Your task to perform on an android device: install app "Google Play Games" Image 0: 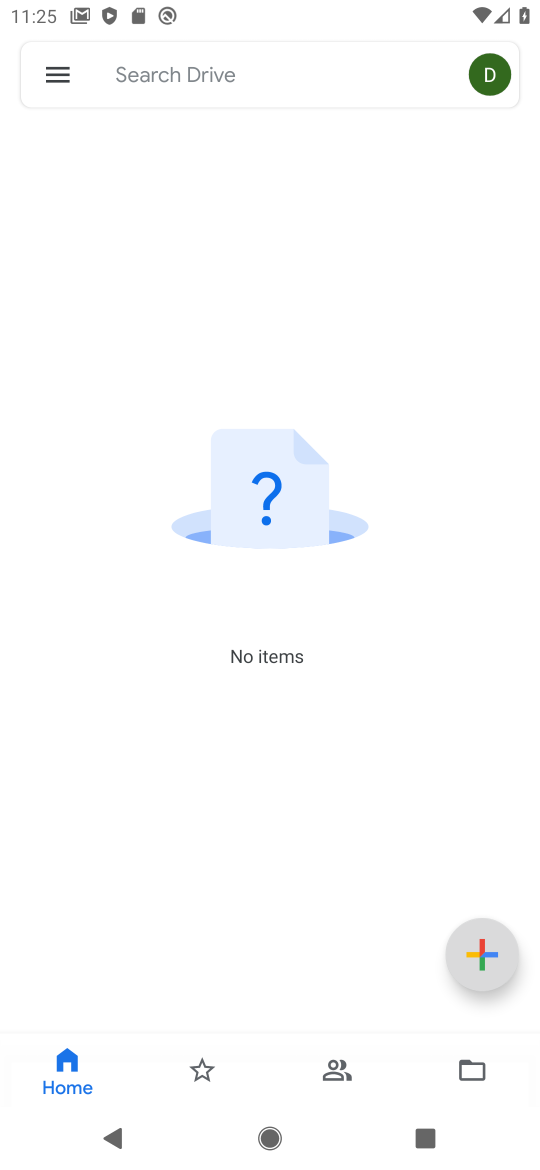
Step 0: press back button
Your task to perform on an android device: install app "Google Play Games" Image 1: 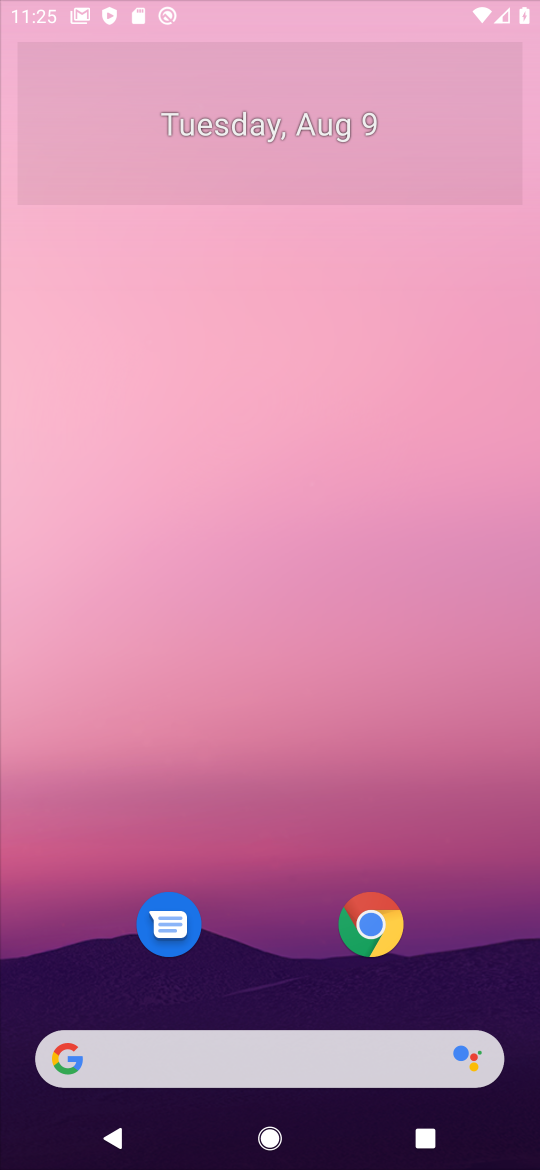
Step 1: press back button
Your task to perform on an android device: install app "Google Play Games" Image 2: 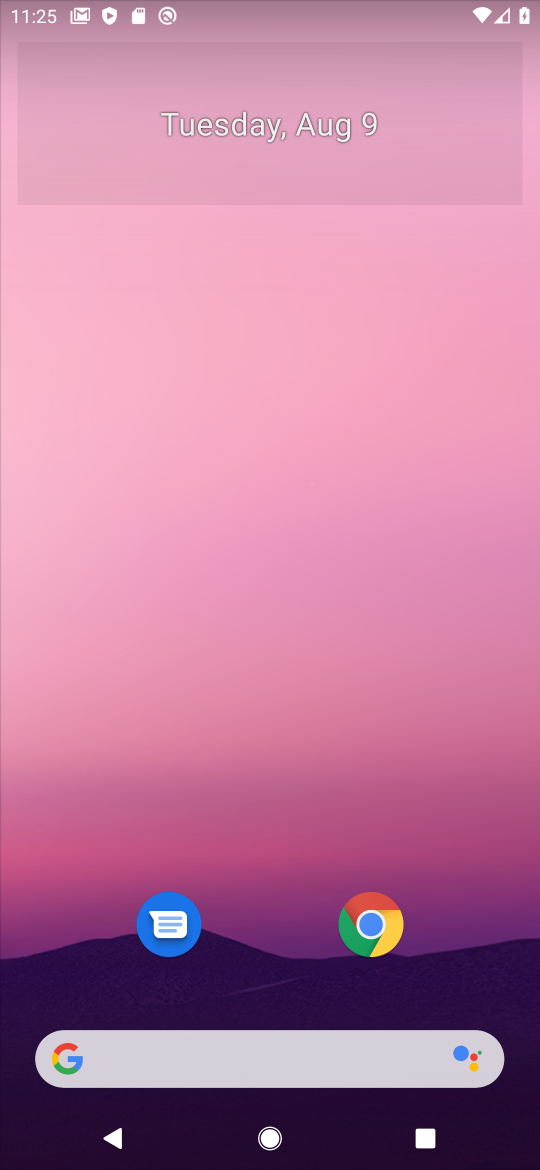
Step 2: drag from (272, 900) to (369, 135)
Your task to perform on an android device: install app "Google Play Games" Image 3: 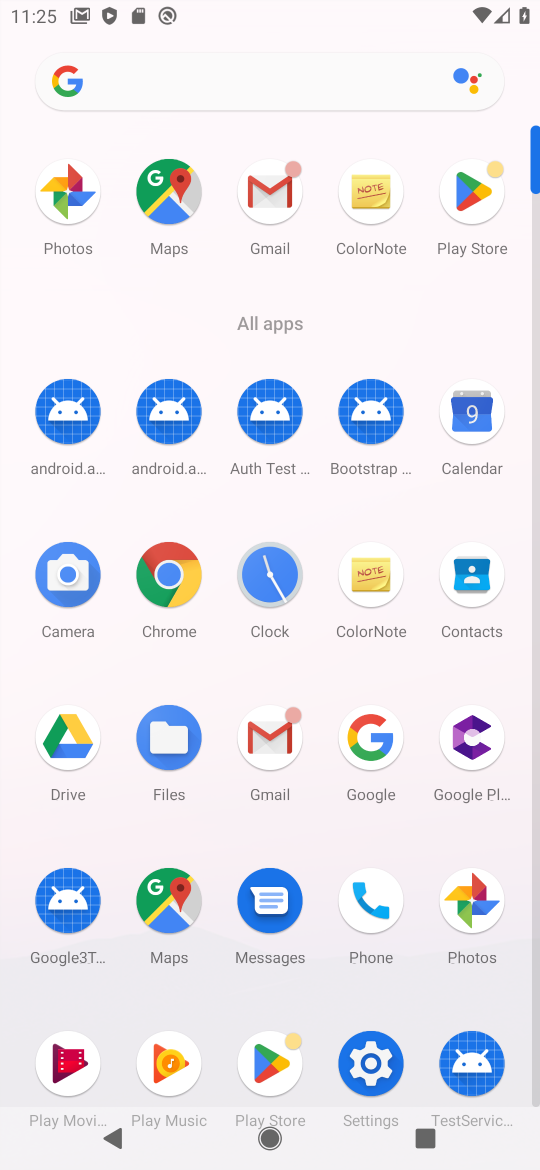
Step 3: click (459, 195)
Your task to perform on an android device: install app "Google Play Games" Image 4: 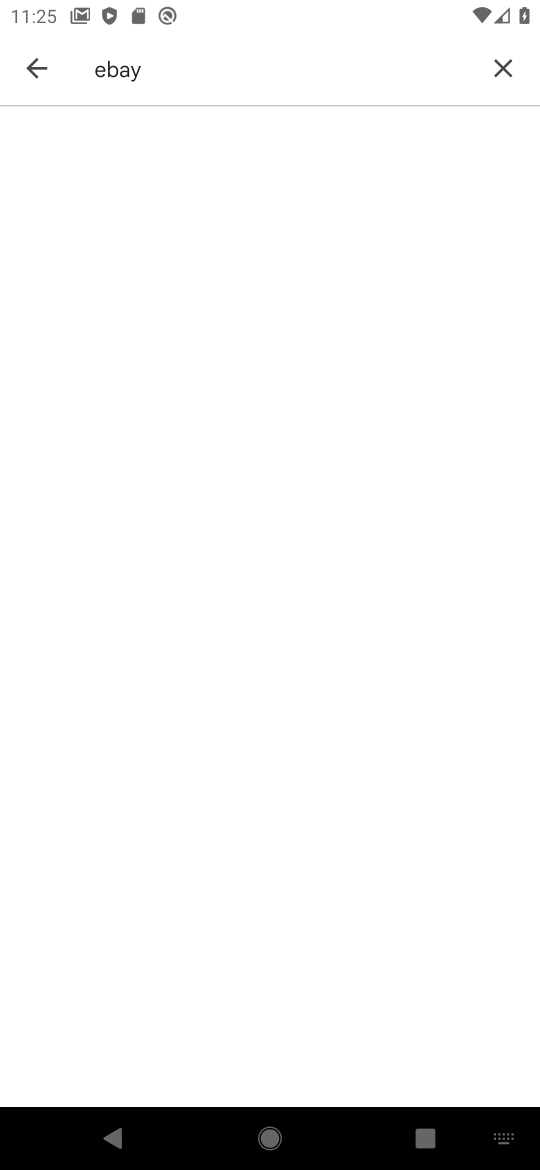
Step 4: click (507, 68)
Your task to perform on an android device: install app "Google Play Games" Image 5: 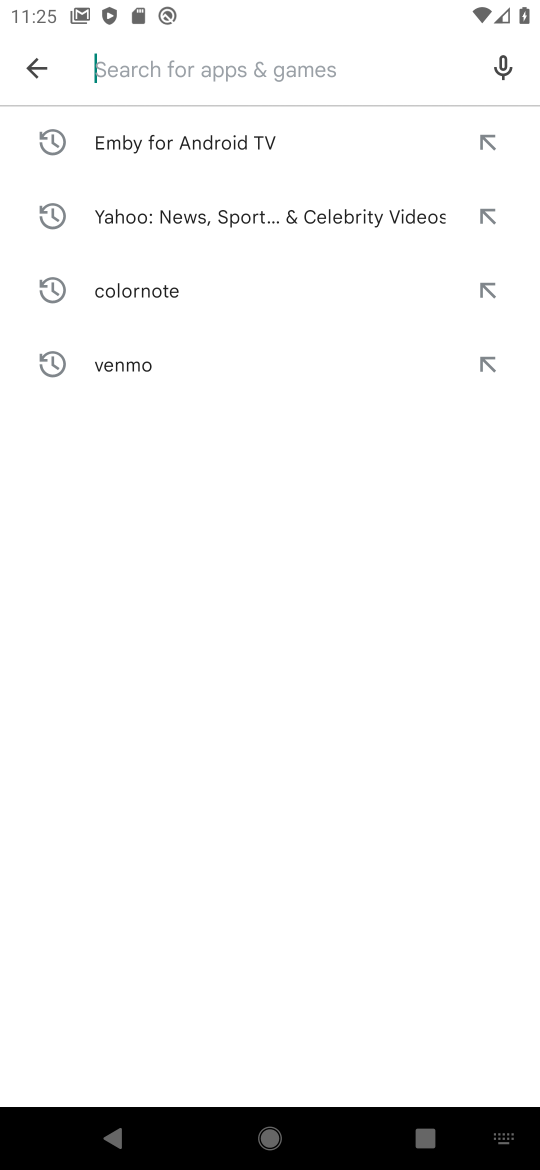
Step 5: click (170, 80)
Your task to perform on an android device: install app "Google Play Games" Image 6: 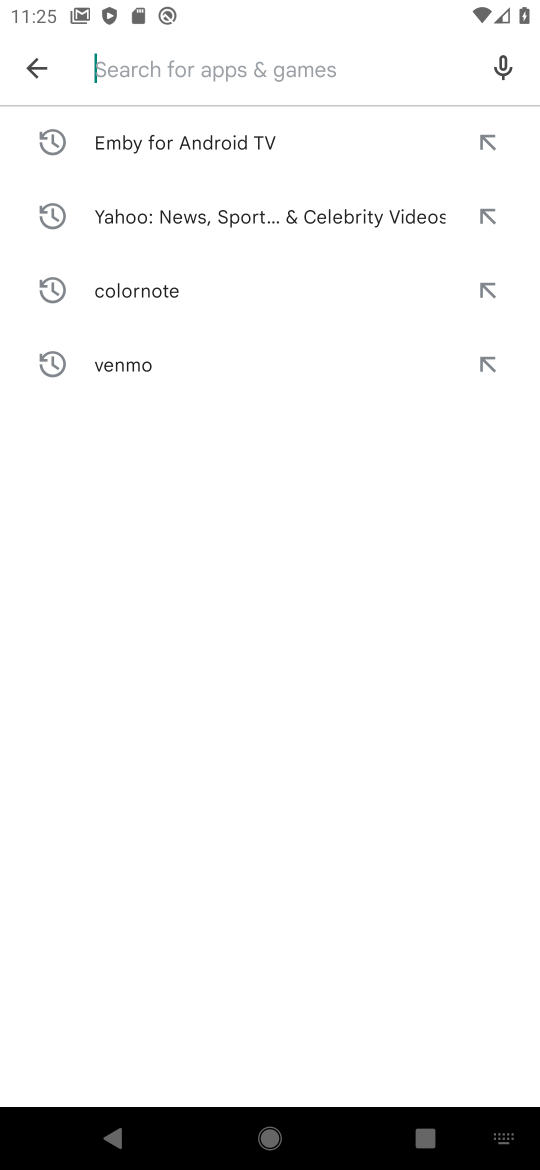
Step 6: type "Google Play Games"
Your task to perform on an android device: install app "Google Play Games" Image 7: 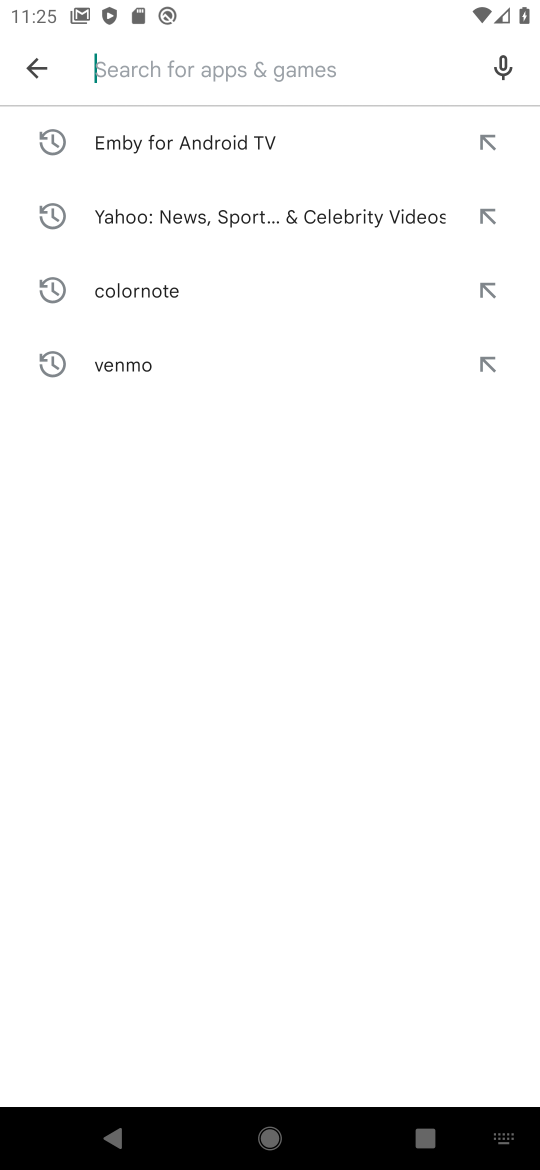
Step 7: click (191, 755)
Your task to perform on an android device: install app "Google Play Games" Image 8: 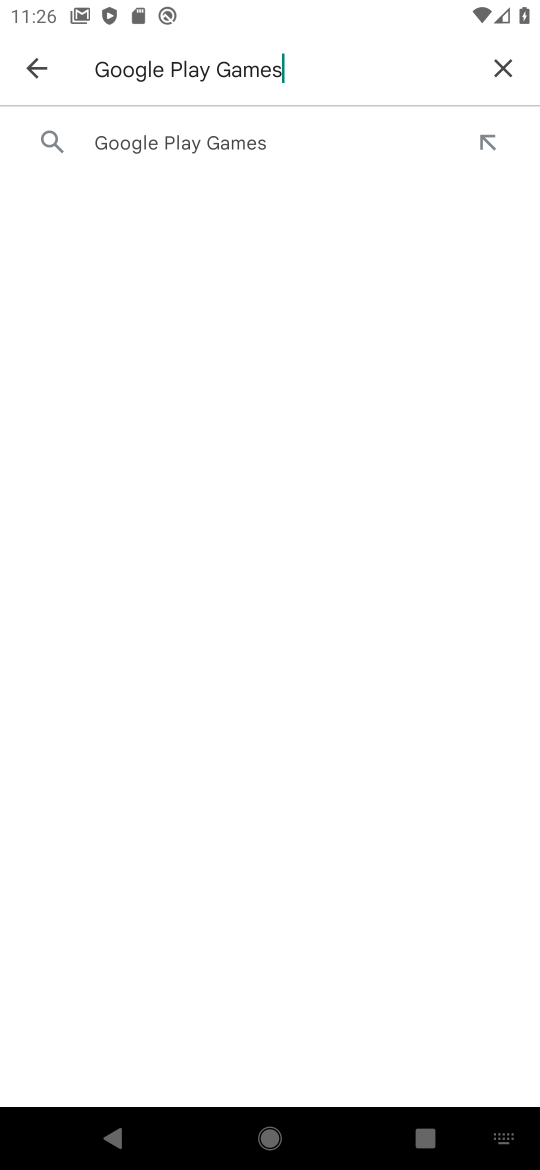
Step 8: click (277, 139)
Your task to perform on an android device: install app "Google Play Games" Image 9: 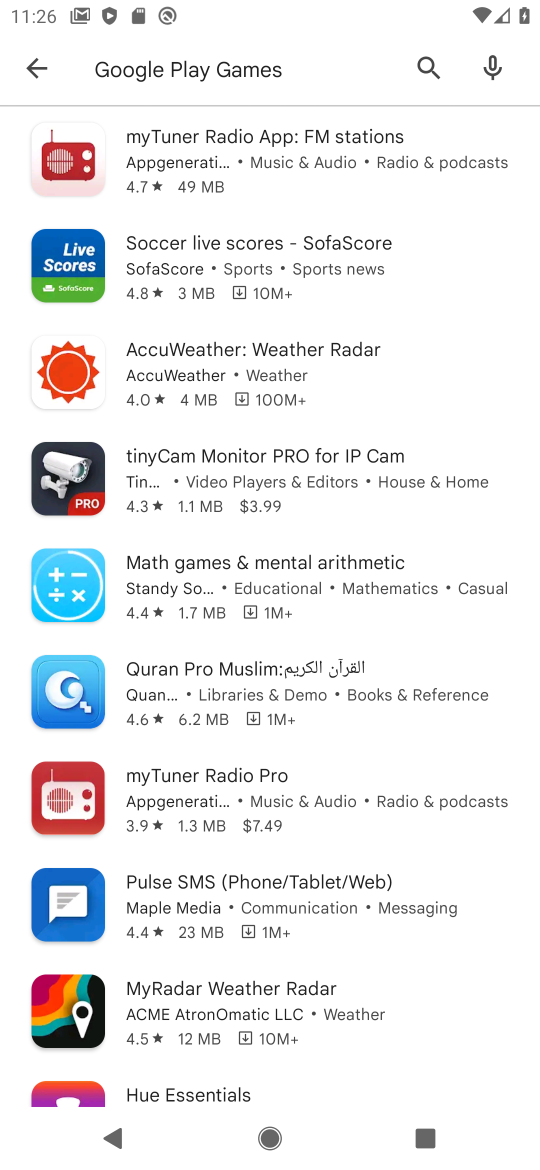
Step 9: task complete